Your task to perform on an android device: change your default location settings in chrome Image 0: 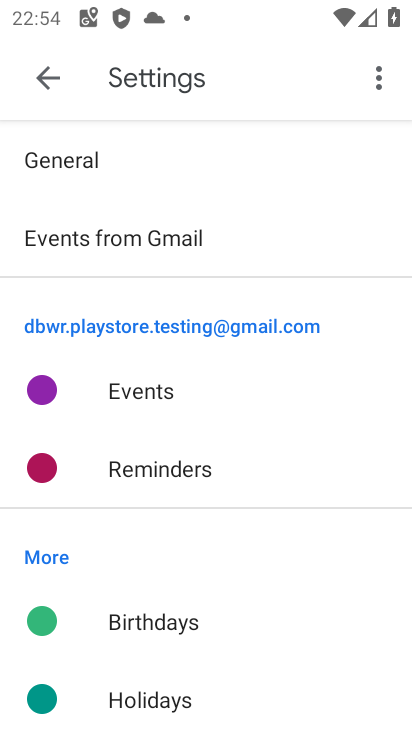
Step 0: press home button
Your task to perform on an android device: change your default location settings in chrome Image 1: 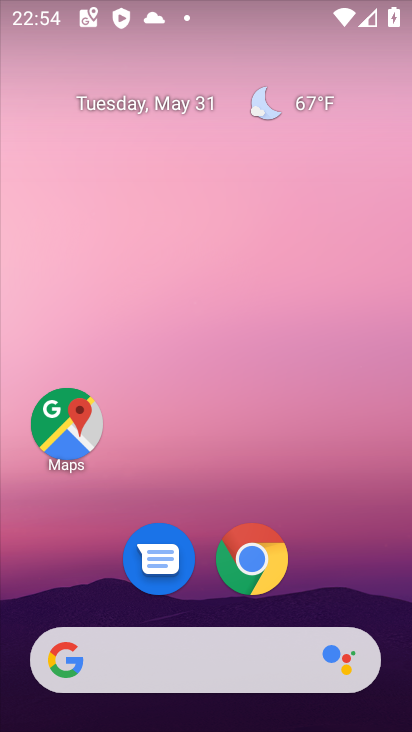
Step 1: click (258, 560)
Your task to perform on an android device: change your default location settings in chrome Image 2: 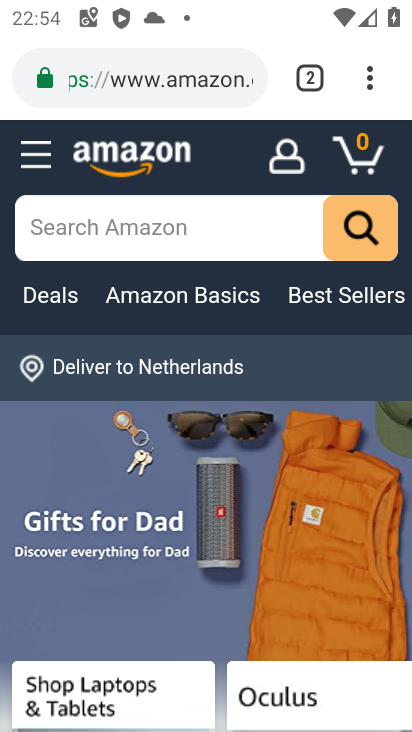
Step 2: click (359, 86)
Your task to perform on an android device: change your default location settings in chrome Image 3: 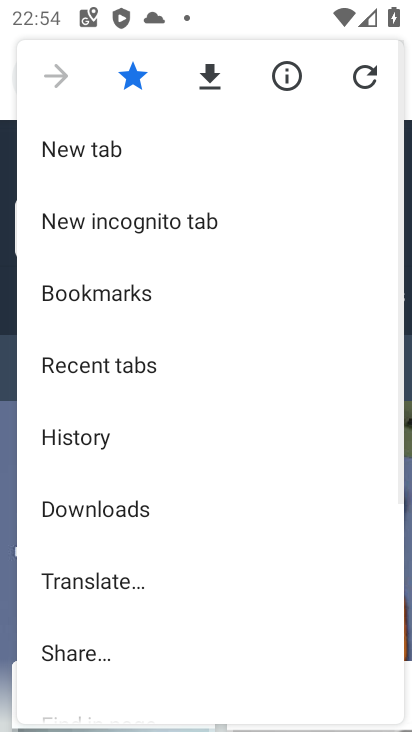
Step 3: drag from (169, 647) to (163, 317)
Your task to perform on an android device: change your default location settings in chrome Image 4: 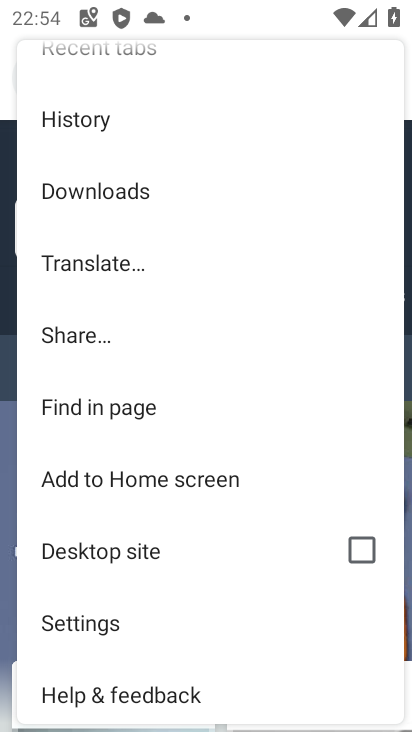
Step 4: click (110, 624)
Your task to perform on an android device: change your default location settings in chrome Image 5: 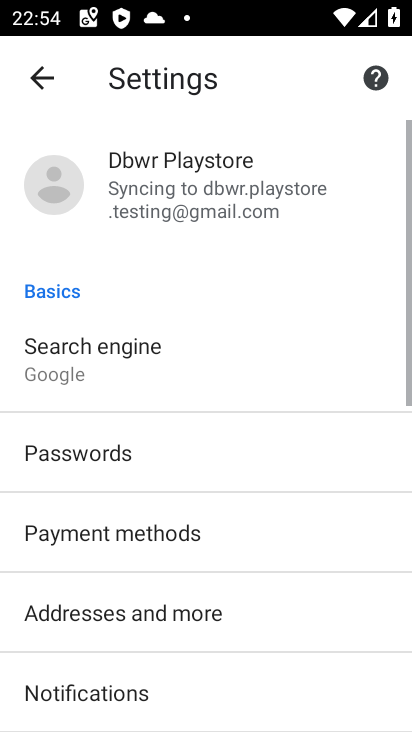
Step 5: click (112, 366)
Your task to perform on an android device: change your default location settings in chrome Image 6: 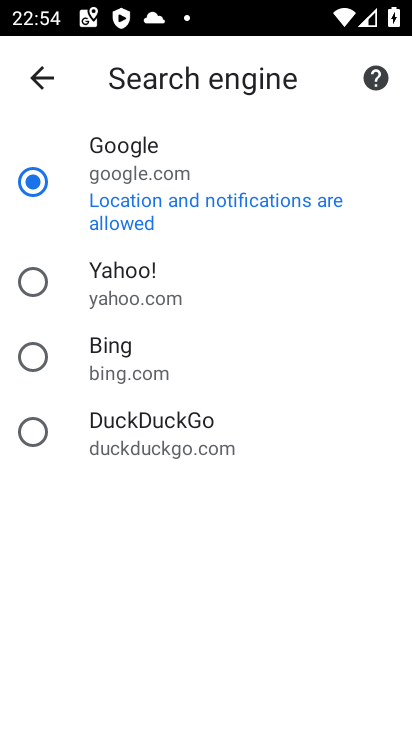
Step 6: press back button
Your task to perform on an android device: change your default location settings in chrome Image 7: 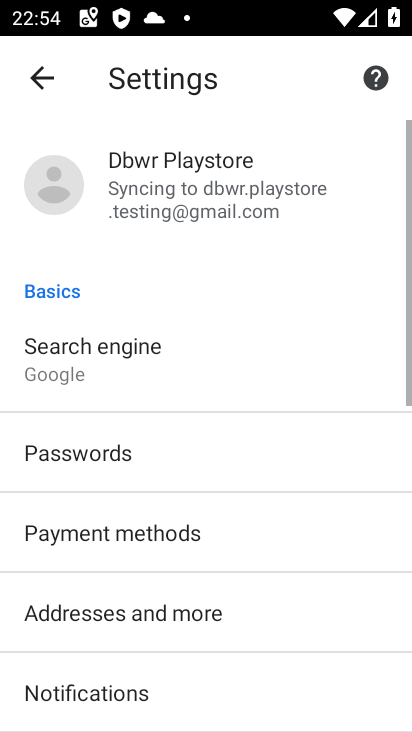
Step 7: drag from (254, 573) to (322, 80)
Your task to perform on an android device: change your default location settings in chrome Image 8: 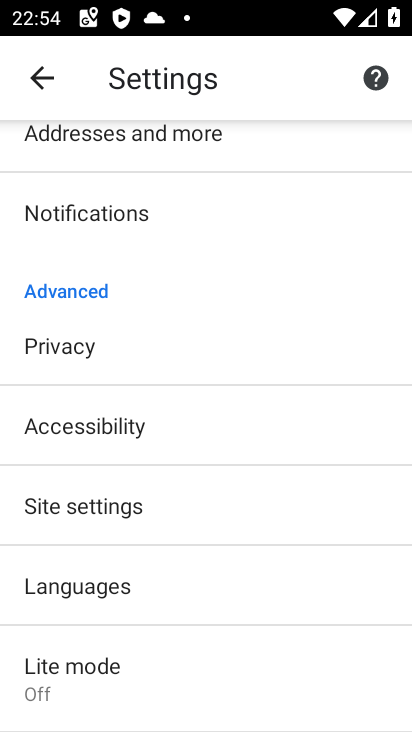
Step 8: click (108, 493)
Your task to perform on an android device: change your default location settings in chrome Image 9: 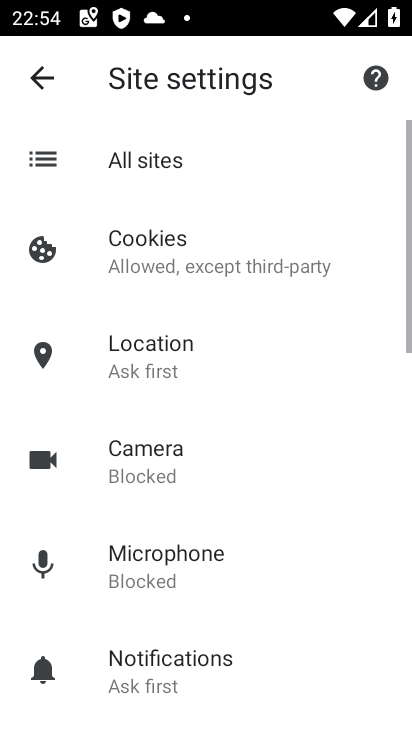
Step 9: click (197, 338)
Your task to perform on an android device: change your default location settings in chrome Image 10: 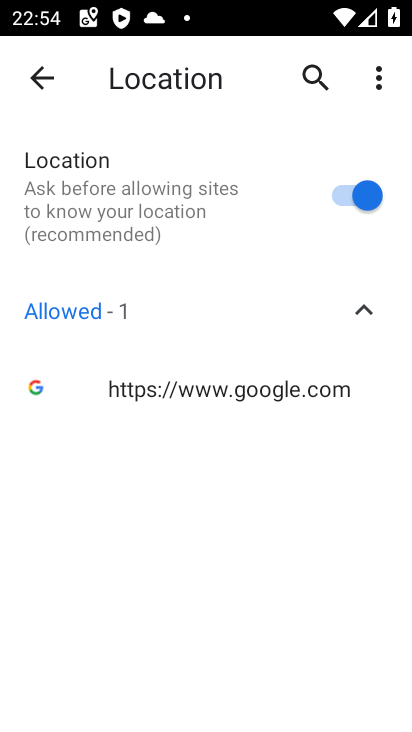
Step 10: click (356, 179)
Your task to perform on an android device: change your default location settings in chrome Image 11: 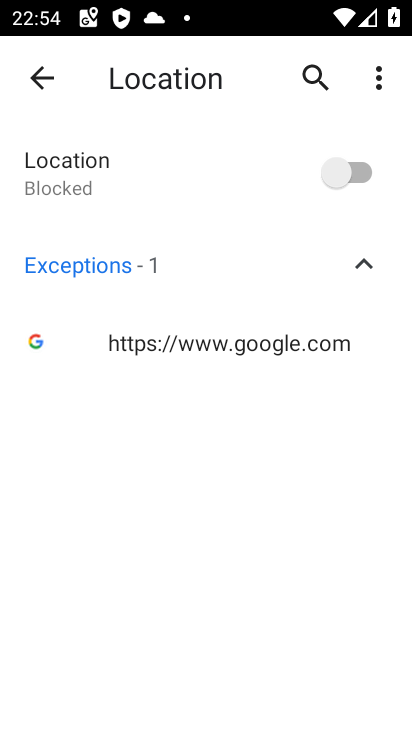
Step 11: task complete